Your task to perform on an android device: Open accessibility settings Image 0: 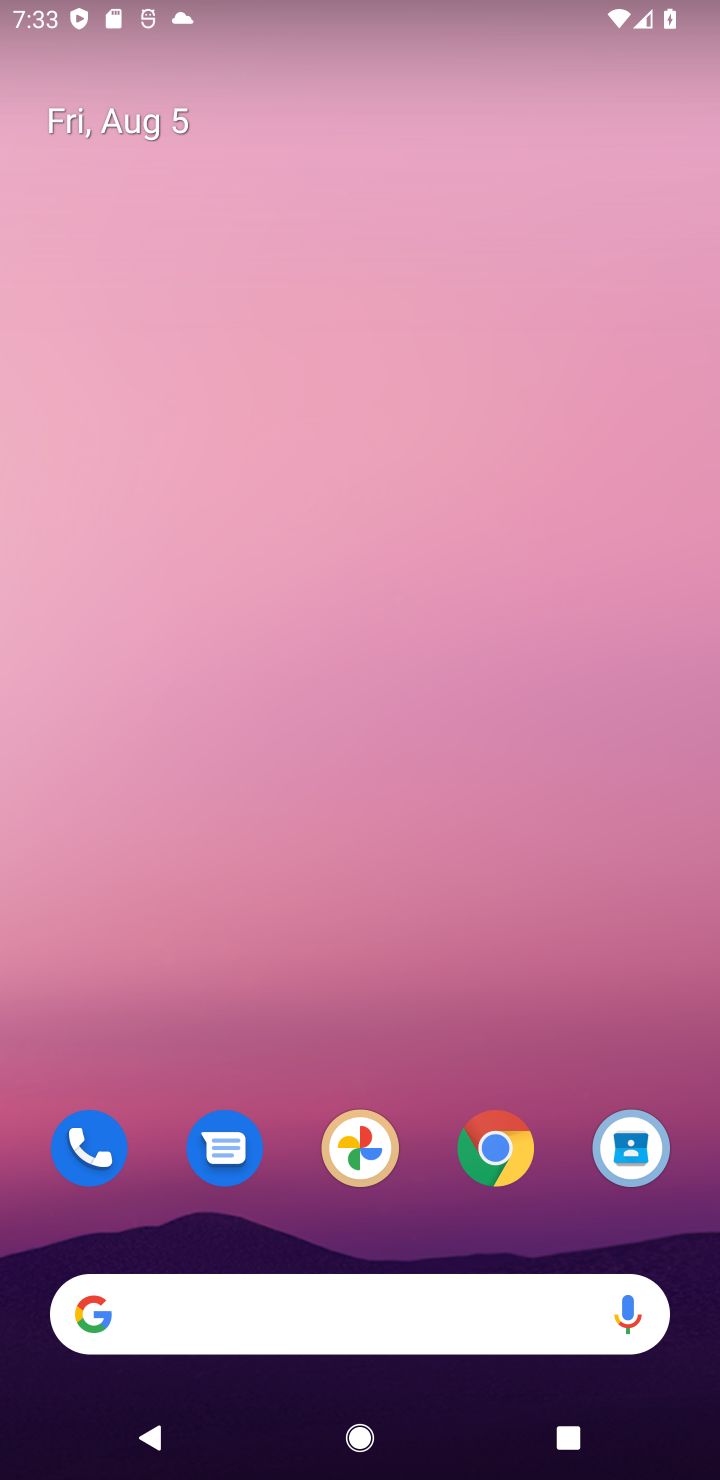
Step 0: drag from (447, 1244) to (473, 210)
Your task to perform on an android device: Open accessibility settings Image 1: 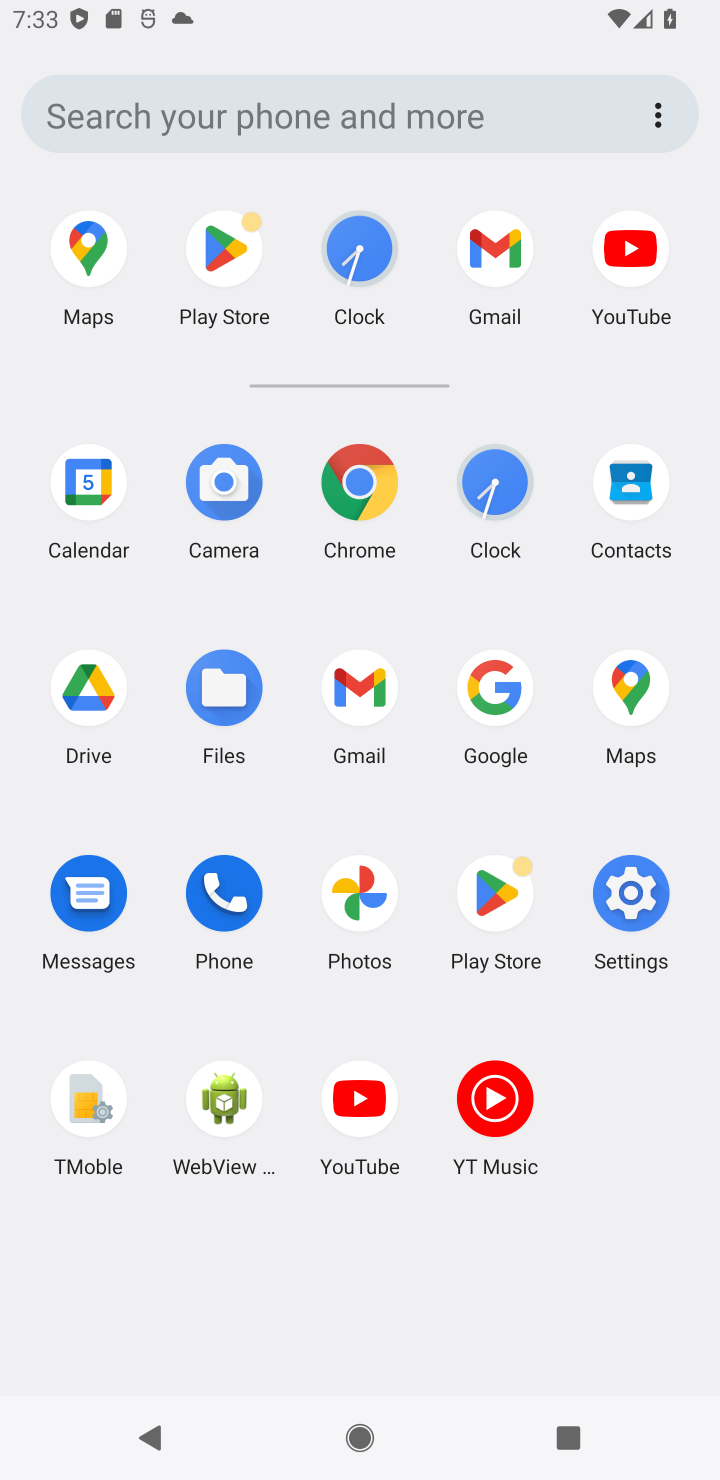
Step 1: click (622, 936)
Your task to perform on an android device: Open accessibility settings Image 2: 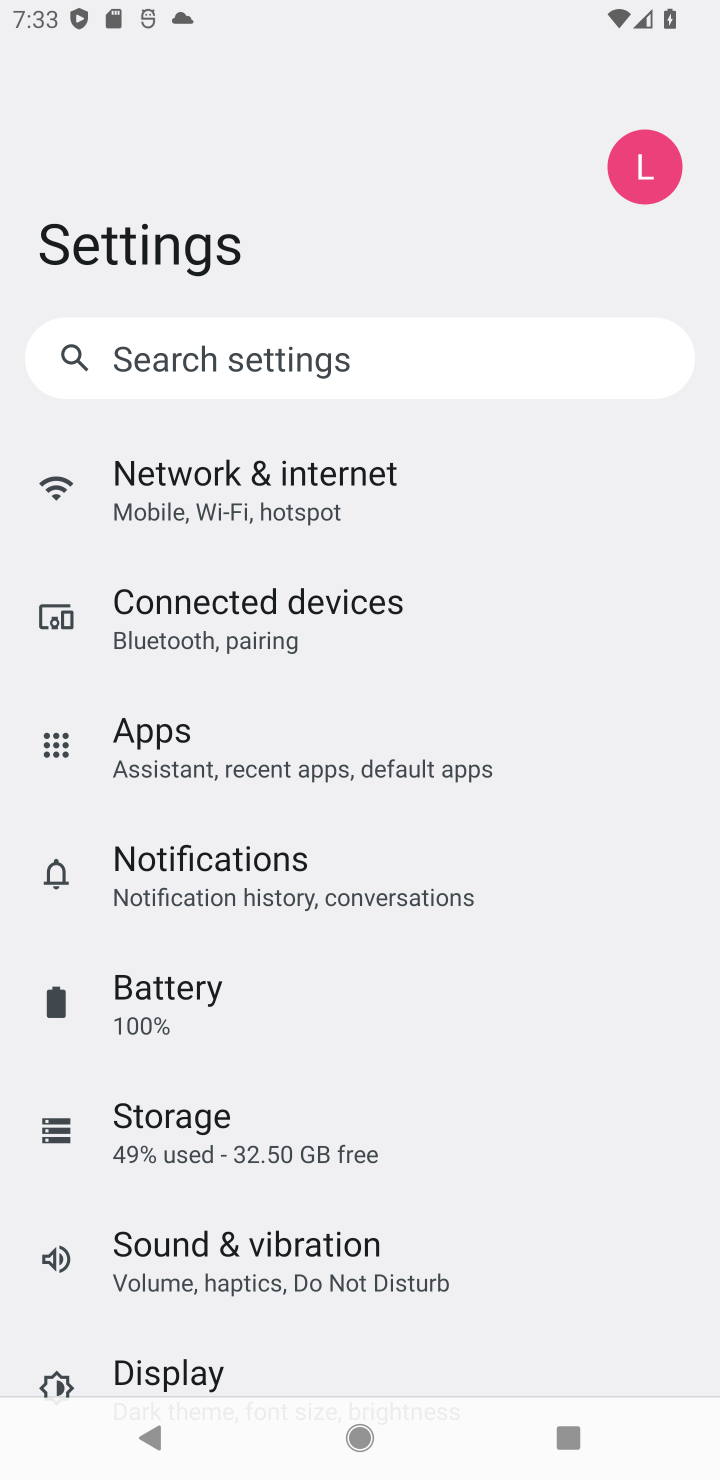
Step 2: drag from (206, 1313) to (368, 448)
Your task to perform on an android device: Open accessibility settings Image 3: 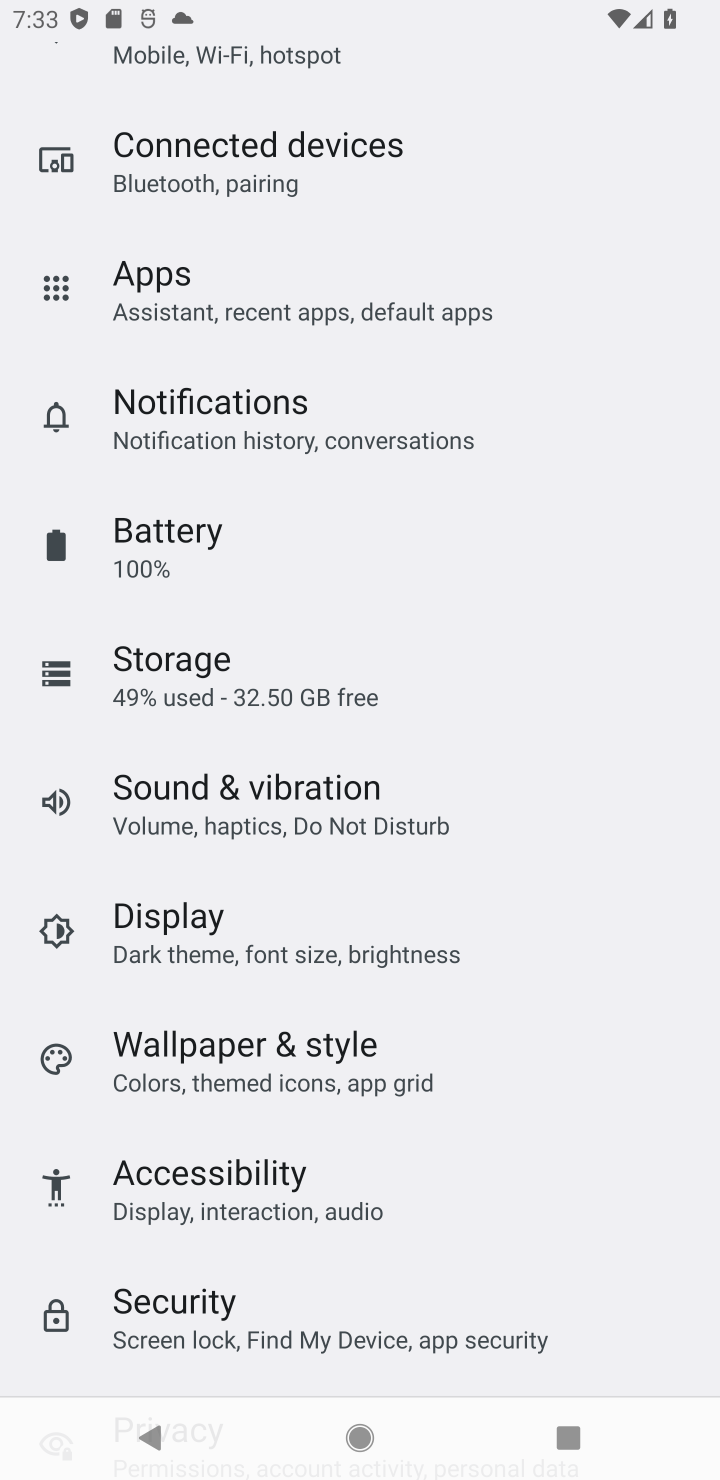
Step 3: click (268, 1217)
Your task to perform on an android device: Open accessibility settings Image 4: 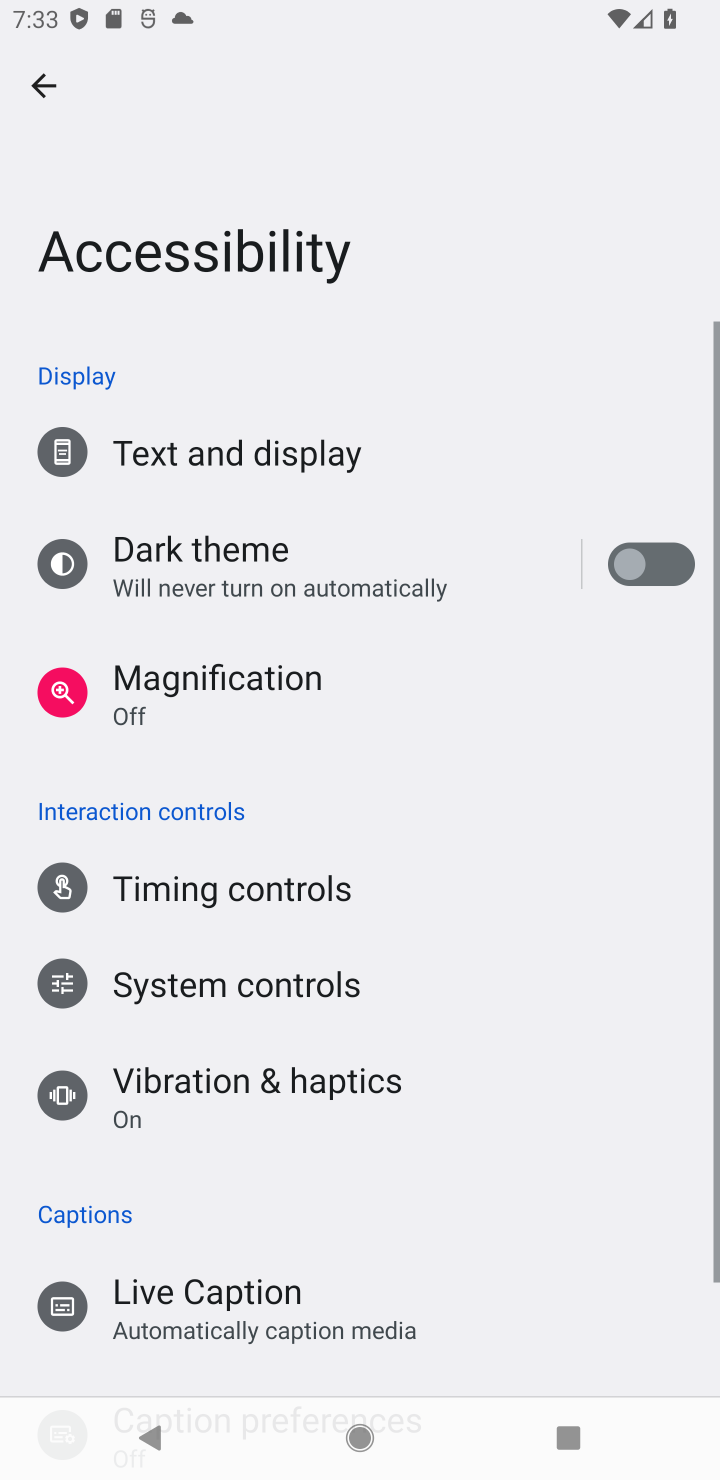
Step 4: task complete